Your task to perform on an android device: Show me popular games on the Play Store Image 0: 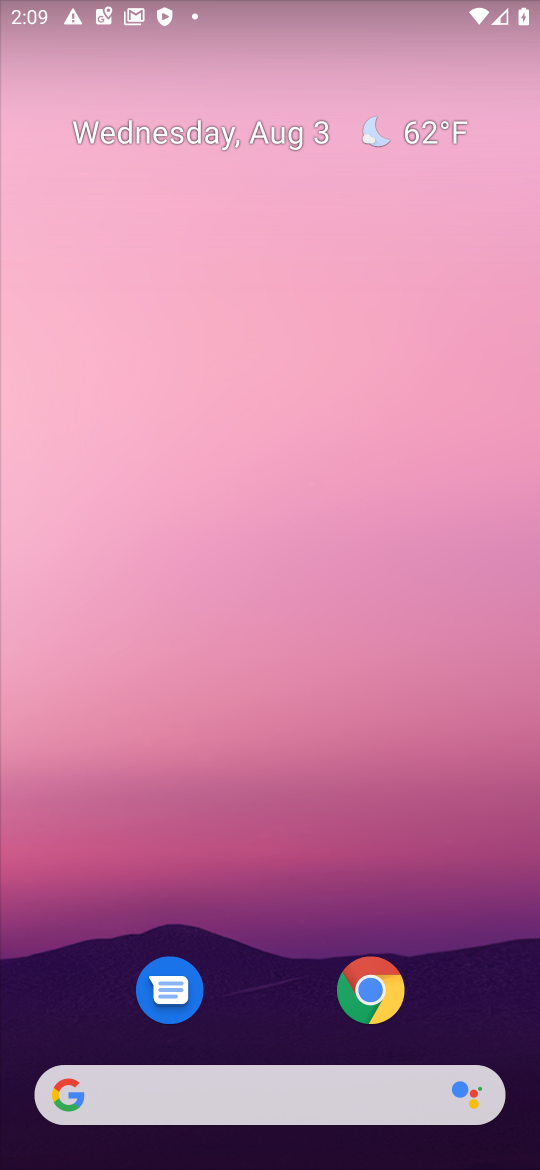
Step 0: drag from (298, 890) to (300, 475)
Your task to perform on an android device: Show me popular games on the Play Store Image 1: 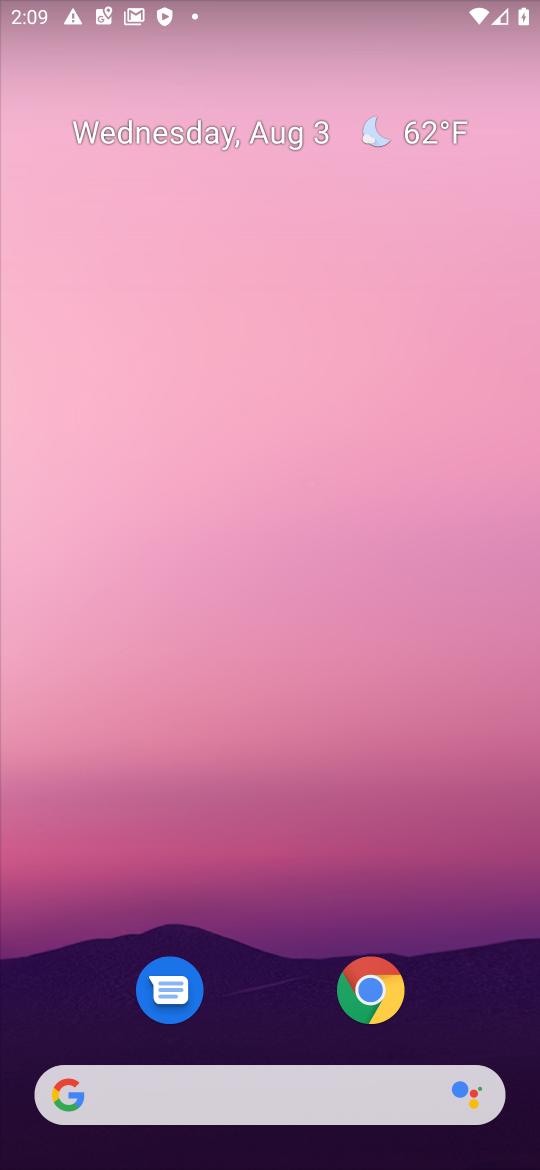
Step 1: drag from (257, 1050) to (257, 266)
Your task to perform on an android device: Show me popular games on the Play Store Image 2: 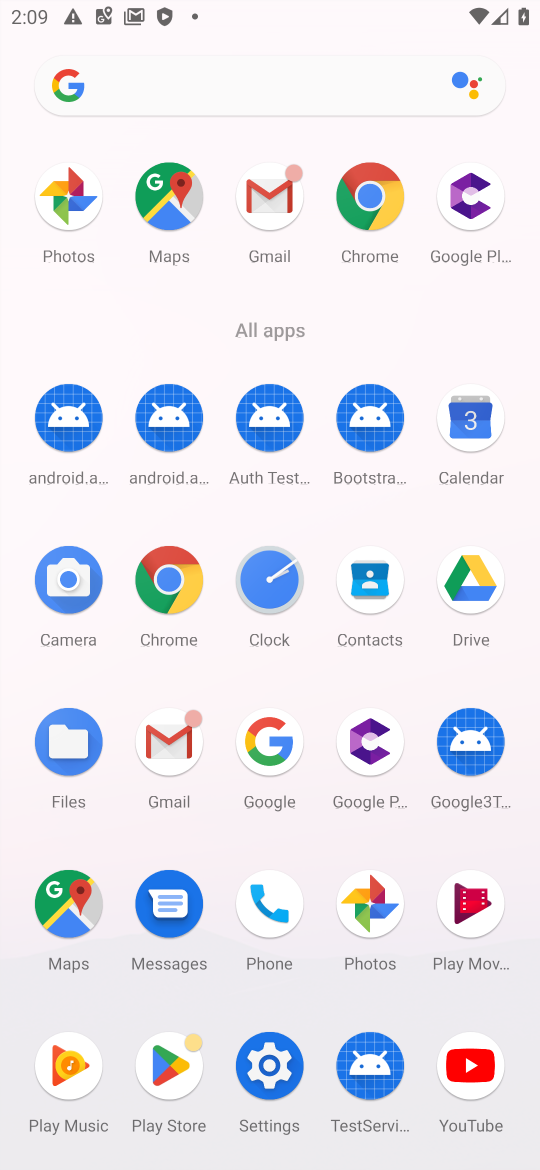
Step 2: click (165, 1076)
Your task to perform on an android device: Show me popular games on the Play Store Image 3: 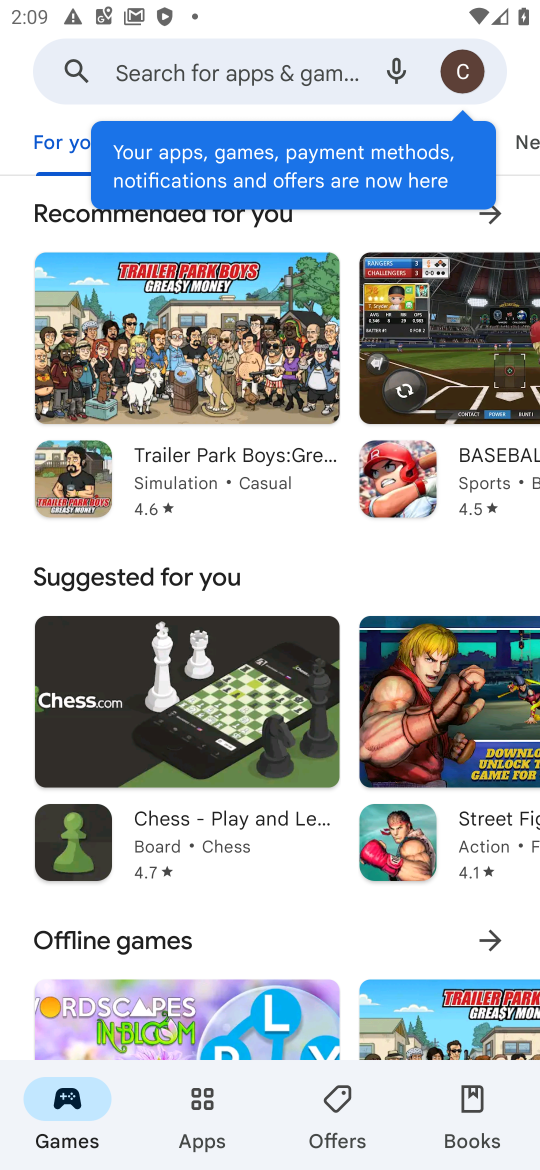
Step 3: click (191, 1097)
Your task to perform on an android device: Show me popular games on the Play Store Image 4: 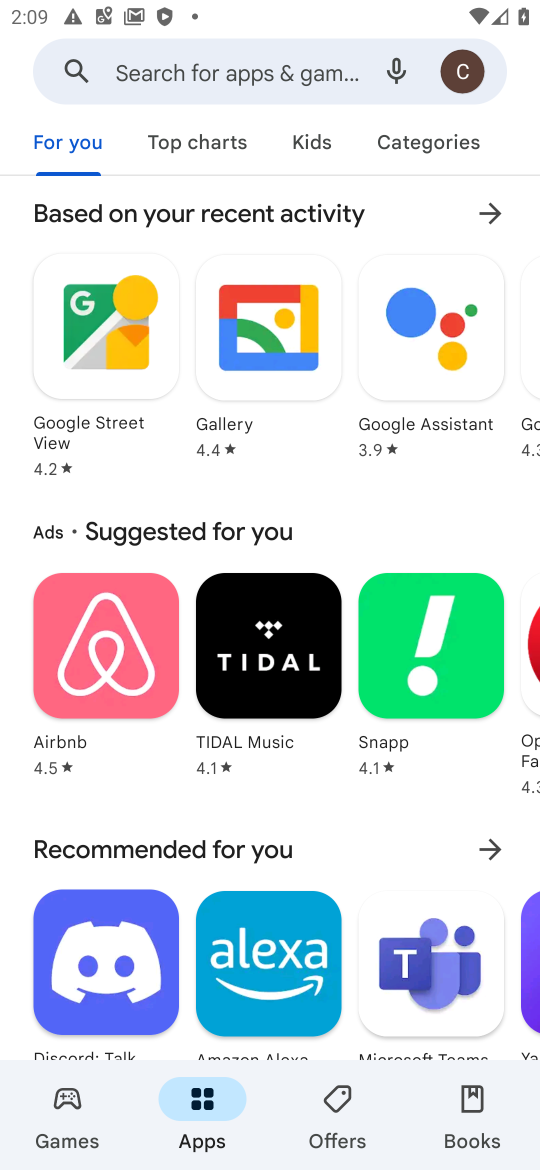
Step 4: task complete